Your task to perform on an android device: turn notification dots off Image 0: 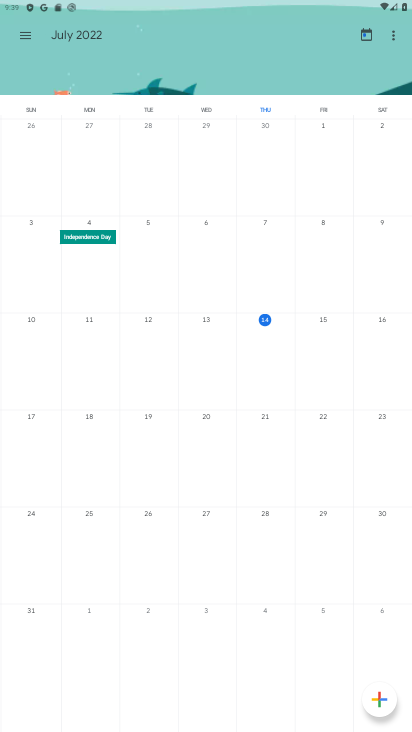
Step 0: press home button
Your task to perform on an android device: turn notification dots off Image 1: 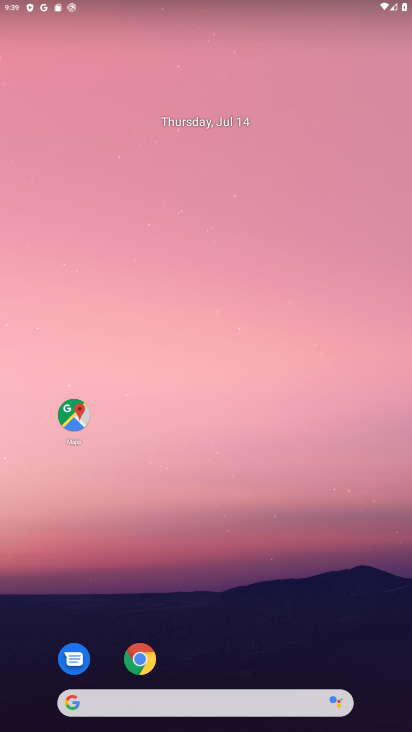
Step 1: drag from (301, 630) to (191, 0)
Your task to perform on an android device: turn notification dots off Image 2: 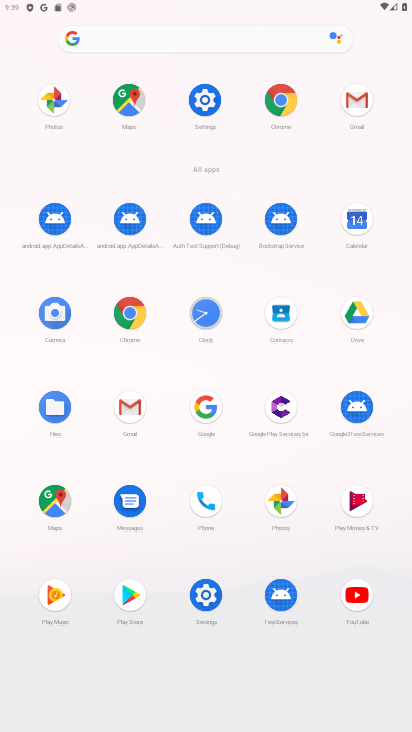
Step 2: click (199, 95)
Your task to perform on an android device: turn notification dots off Image 3: 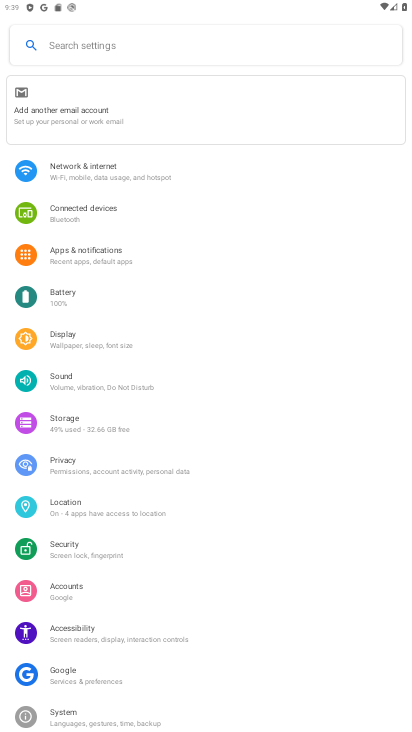
Step 3: click (85, 251)
Your task to perform on an android device: turn notification dots off Image 4: 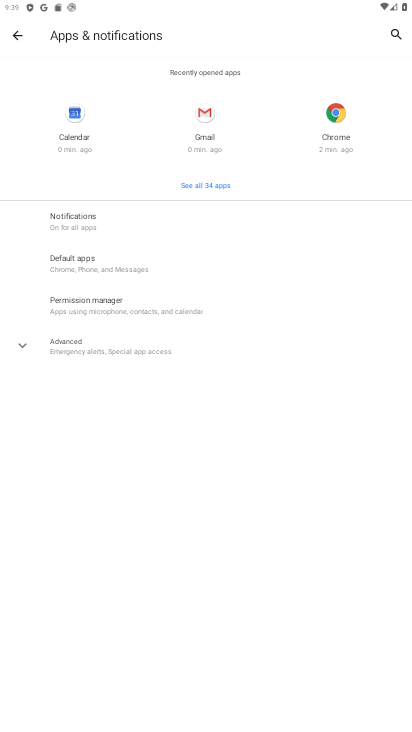
Step 4: click (87, 221)
Your task to perform on an android device: turn notification dots off Image 5: 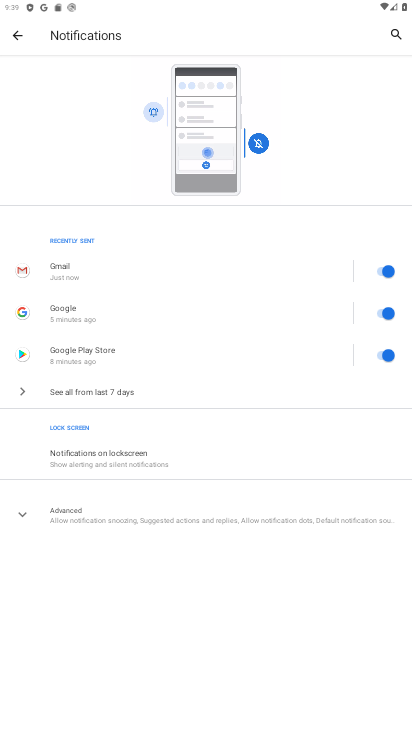
Step 5: click (230, 514)
Your task to perform on an android device: turn notification dots off Image 6: 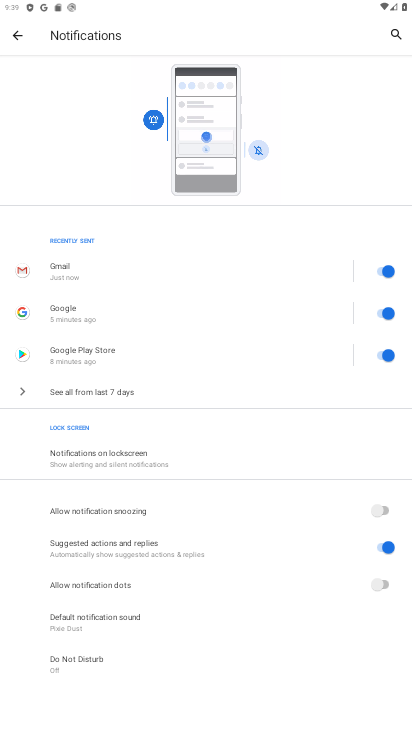
Step 6: task complete